Your task to perform on an android device: remove spam from my inbox in the gmail app Image 0: 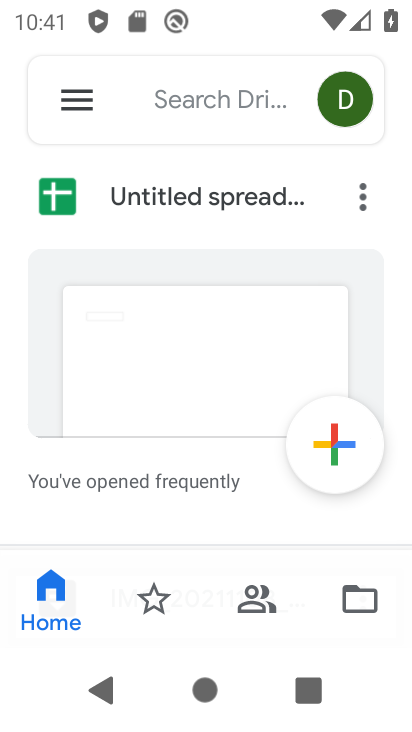
Step 0: press home button
Your task to perform on an android device: remove spam from my inbox in the gmail app Image 1: 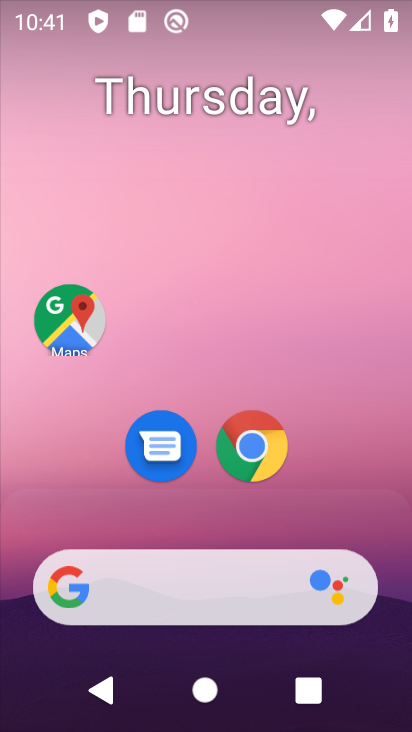
Step 1: click (284, 50)
Your task to perform on an android device: remove spam from my inbox in the gmail app Image 2: 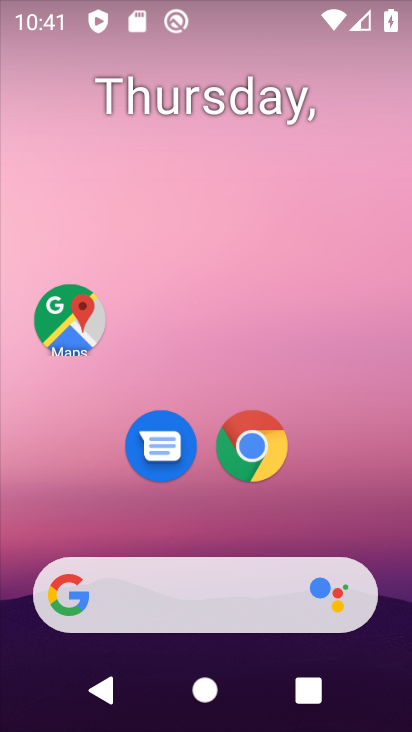
Step 2: drag from (218, 431) to (225, 82)
Your task to perform on an android device: remove spam from my inbox in the gmail app Image 3: 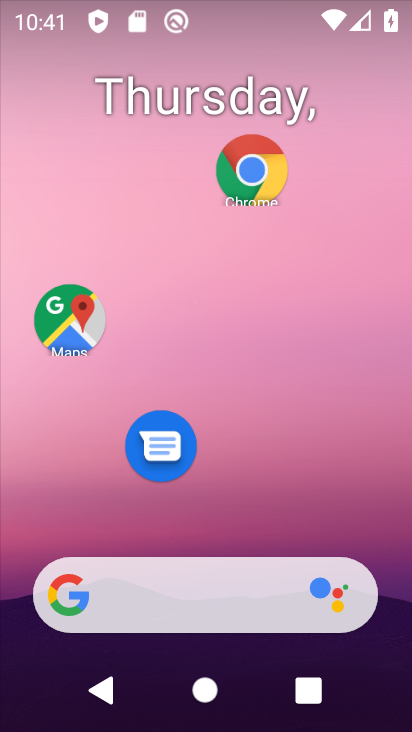
Step 3: drag from (151, 660) to (198, 86)
Your task to perform on an android device: remove spam from my inbox in the gmail app Image 4: 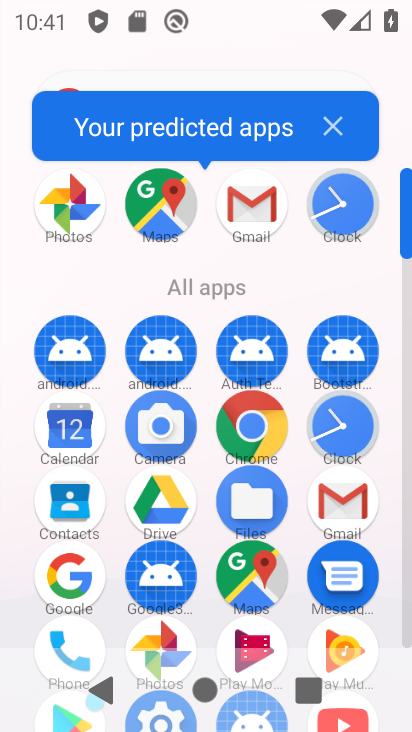
Step 4: click (252, 210)
Your task to perform on an android device: remove spam from my inbox in the gmail app Image 5: 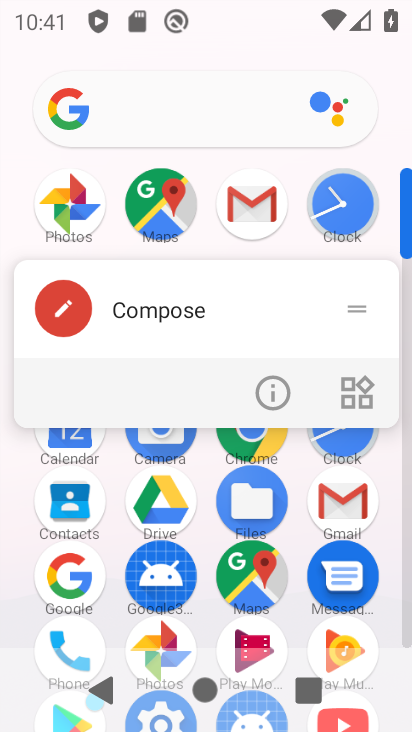
Step 5: click (252, 210)
Your task to perform on an android device: remove spam from my inbox in the gmail app Image 6: 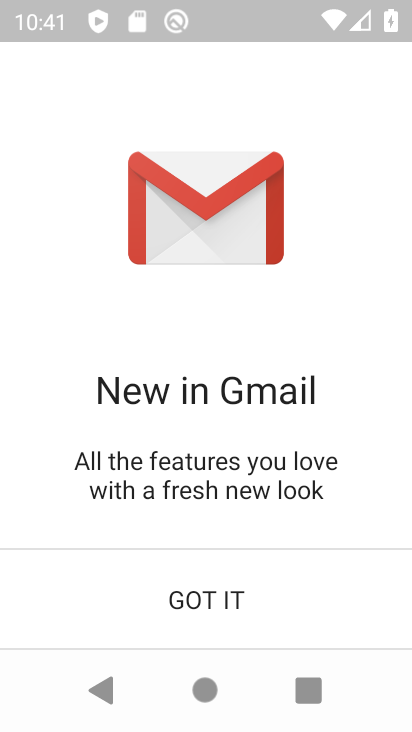
Step 6: click (195, 590)
Your task to perform on an android device: remove spam from my inbox in the gmail app Image 7: 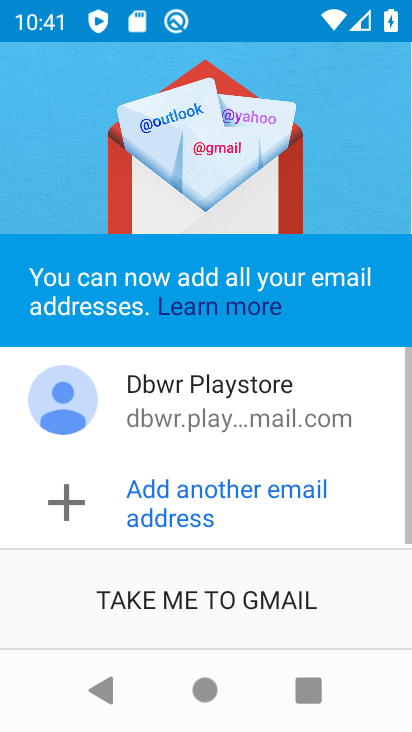
Step 7: click (200, 597)
Your task to perform on an android device: remove spam from my inbox in the gmail app Image 8: 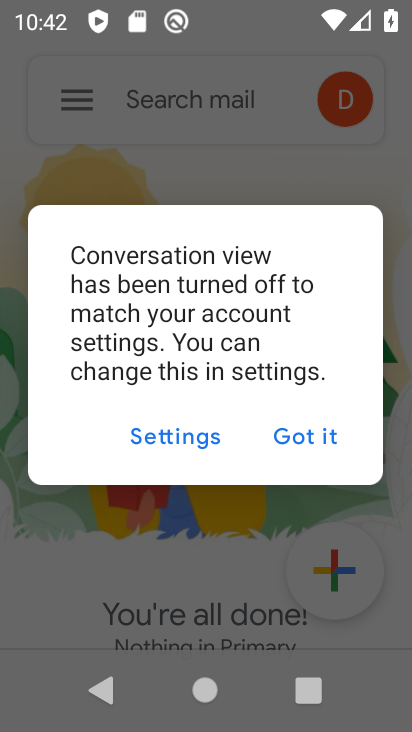
Step 8: click (314, 435)
Your task to perform on an android device: remove spam from my inbox in the gmail app Image 9: 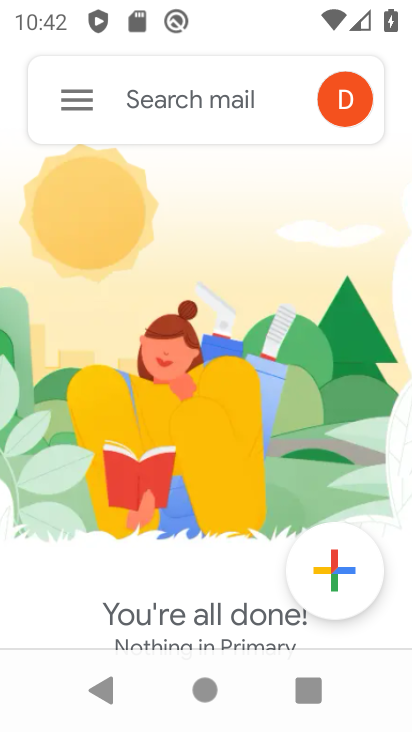
Step 9: click (69, 100)
Your task to perform on an android device: remove spam from my inbox in the gmail app Image 10: 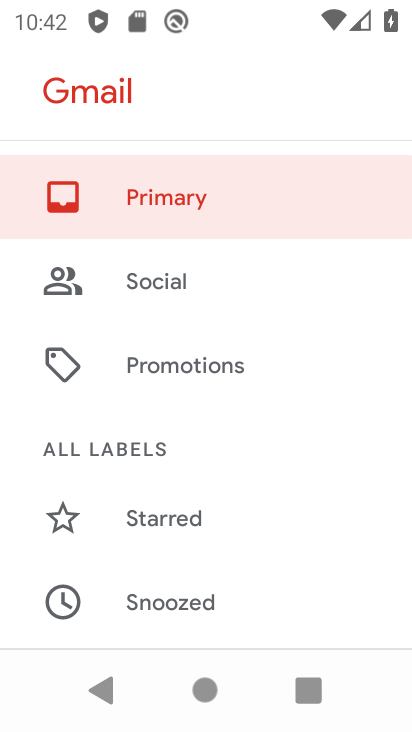
Step 10: drag from (185, 584) to (237, 146)
Your task to perform on an android device: remove spam from my inbox in the gmail app Image 11: 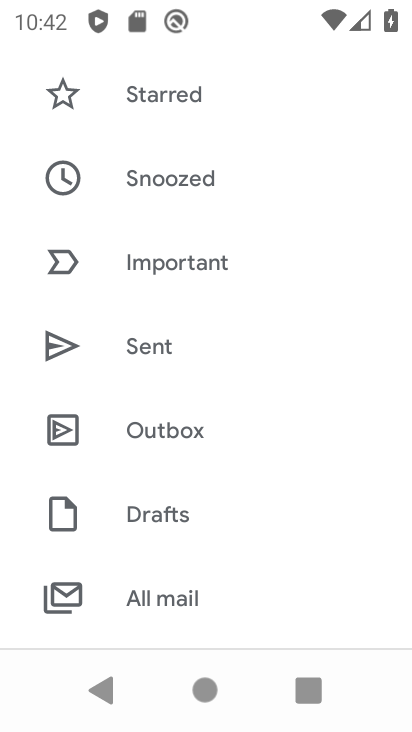
Step 11: drag from (200, 459) to (187, 222)
Your task to perform on an android device: remove spam from my inbox in the gmail app Image 12: 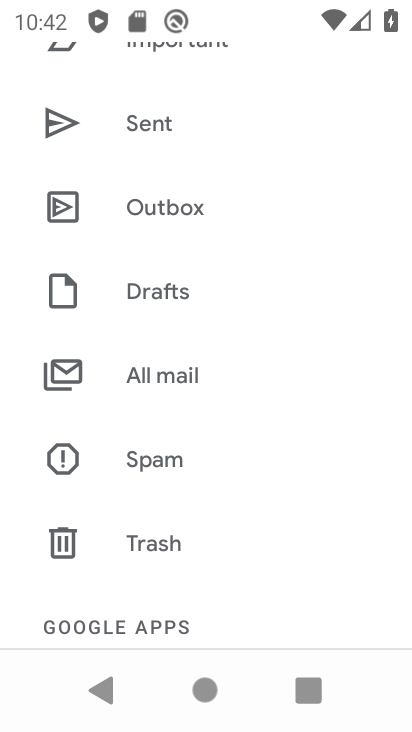
Step 12: click (160, 461)
Your task to perform on an android device: remove spam from my inbox in the gmail app Image 13: 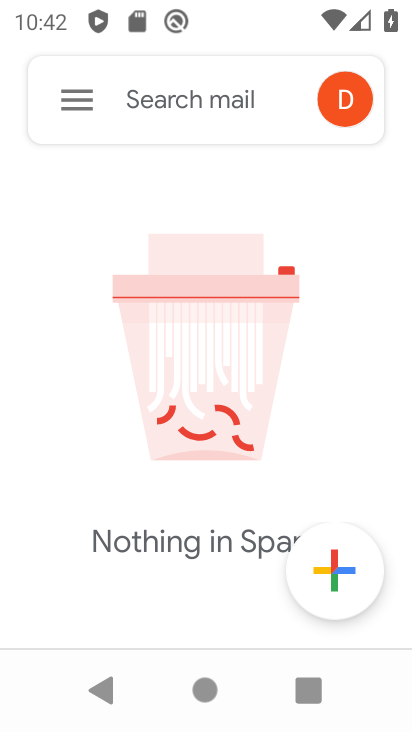
Step 13: task complete